Your task to perform on an android device: turn off smart reply in the gmail app Image 0: 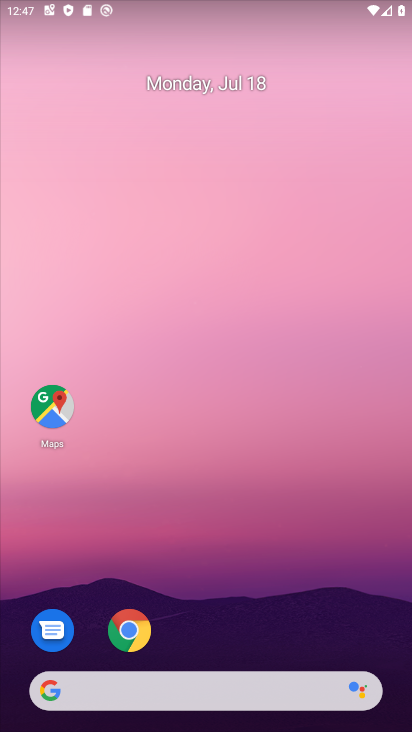
Step 0: drag from (304, 619) to (263, 48)
Your task to perform on an android device: turn off smart reply in the gmail app Image 1: 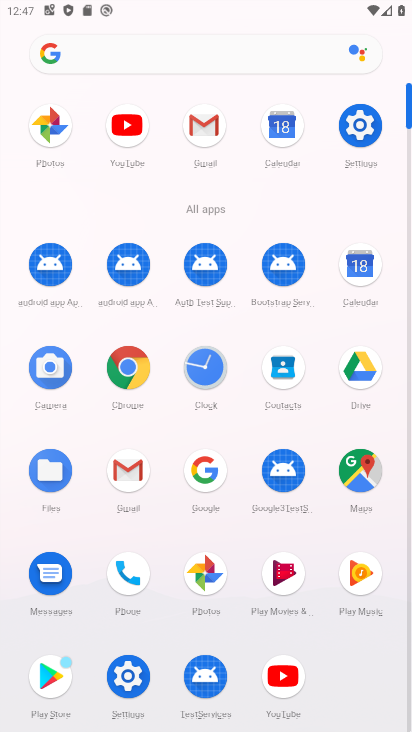
Step 1: click (206, 122)
Your task to perform on an android device: turn off smart reply in the gmail app Image 2: 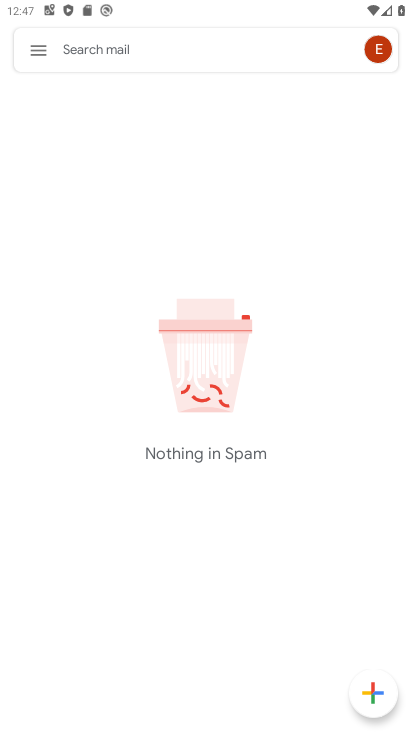
Step 2: click (40, 61)
Your task to perform on an android device: turn off smart reply in the gmail app Image 3: 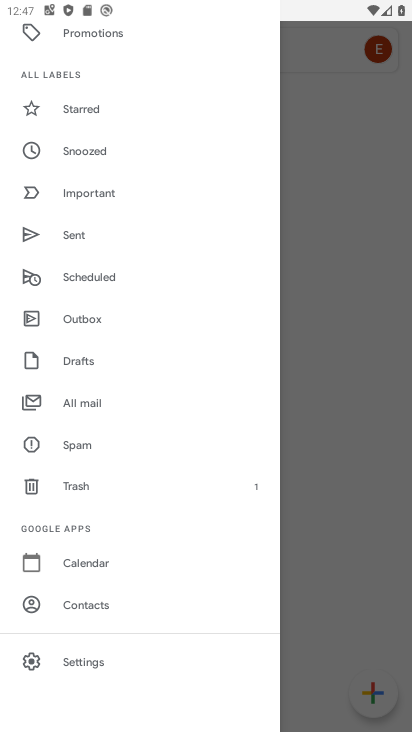
Step 3: click (118, 653)
Your task to perform on an android device: turn off smart reply in the gmail app Image 4: 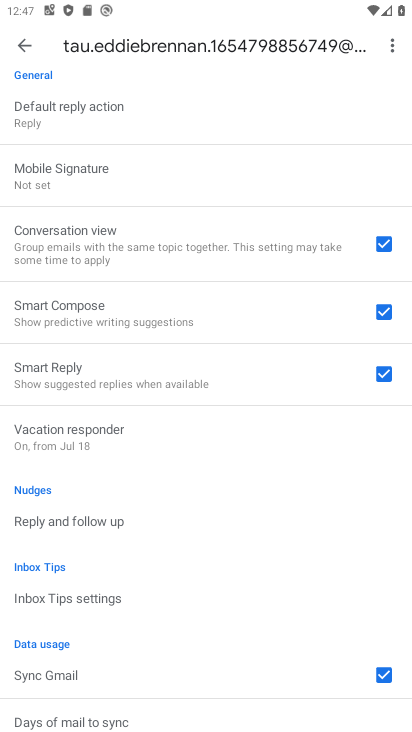
Step 4: click (378, 365)
Your task to perform on an android device: turn off smart reply in the gmail app Image 5: 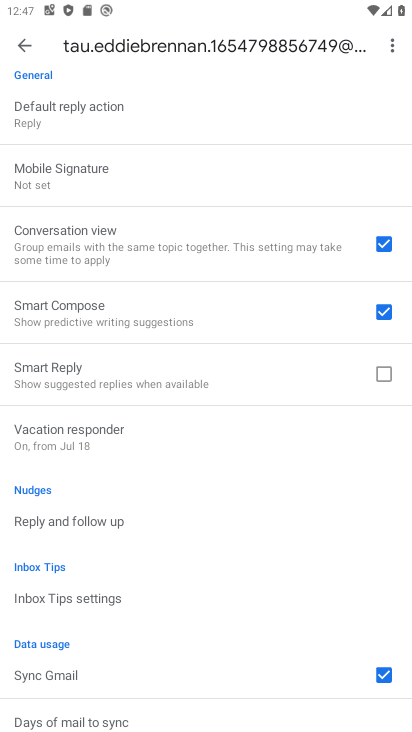
Step 5: task complete